Your task to perform on an android device: Open the calendar app, open the side menu, and click the "Day" option Image 0: 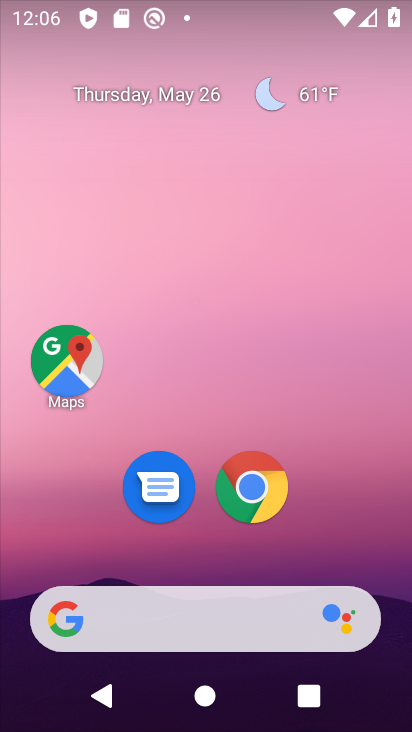
Step 0: drag from (390, 582) to (138, 23)
Your task to perform on an android device: Open the calendar app, open the side menu, and click the "Day" option Image 1: 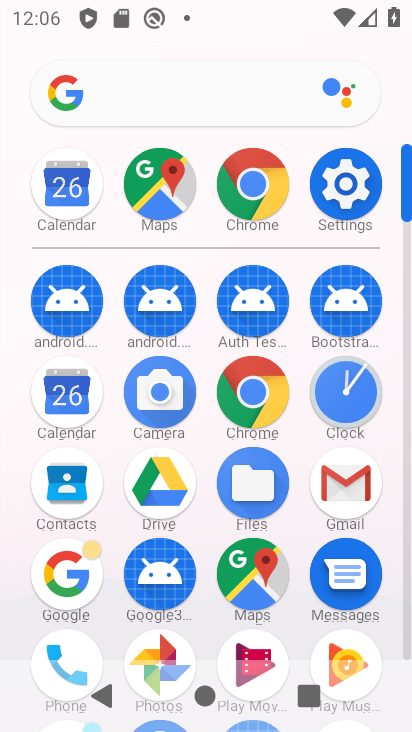
Step 1: click (74, 390)
Your task to perform on an android device: Open the calendar app, open the side menu, and click the "Day" option Image 2: 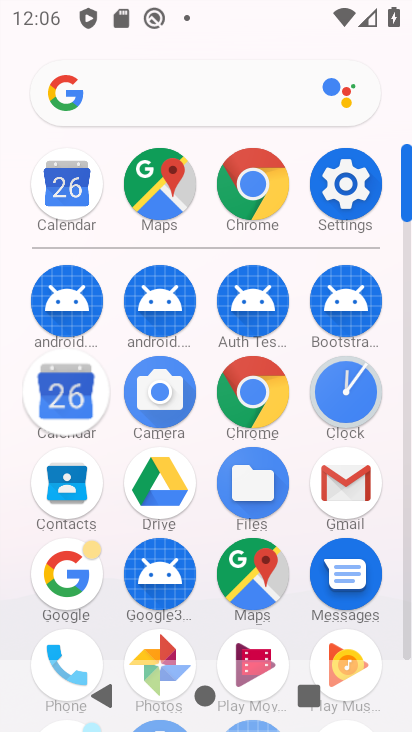
Step 2: click (85, 366)
Your task to perform on an android device: Open the calendar app, open the side menu, and click the "Day" option Image 3: 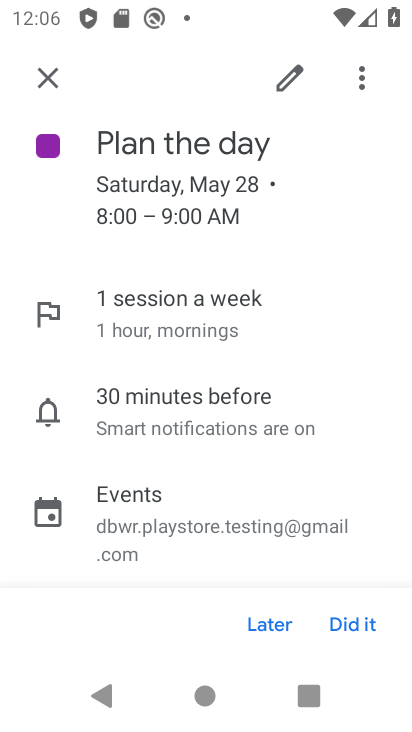
Step 3: click (54, 74)
Your task to perform on an android device: Open the calendar app, open the side menu, and click the "Day" option Image 4: 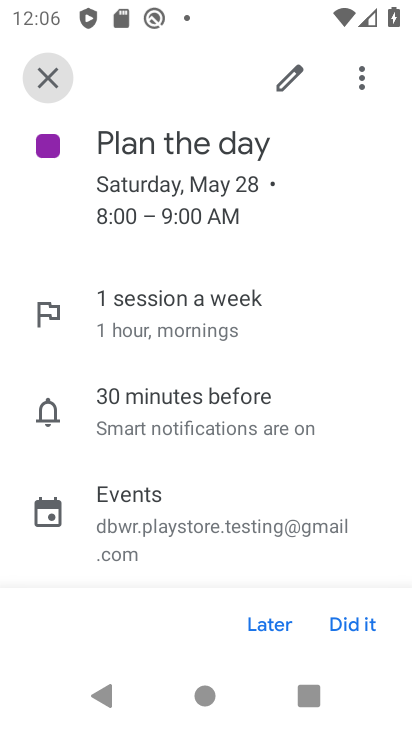
Step 4: click (53, 73)
Your task to perform on an android device: Open the calendar app, open the side menu, and click the "Day" option Image 5: 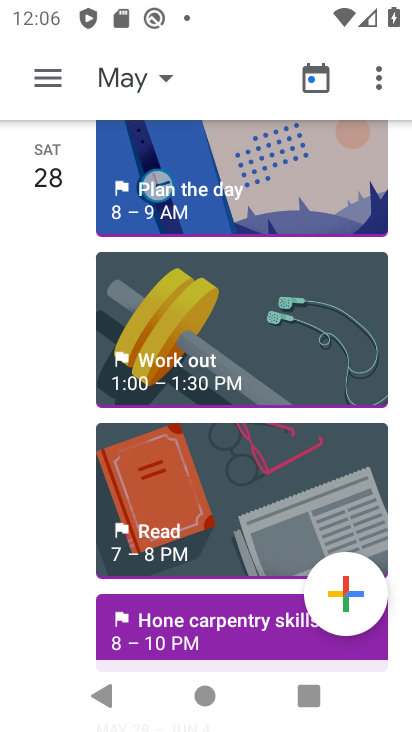
Step 5: click (52, 72)
Your task to perform on an android device: Open the calendar app, open the side menu, and click the "Day" option Image 6: 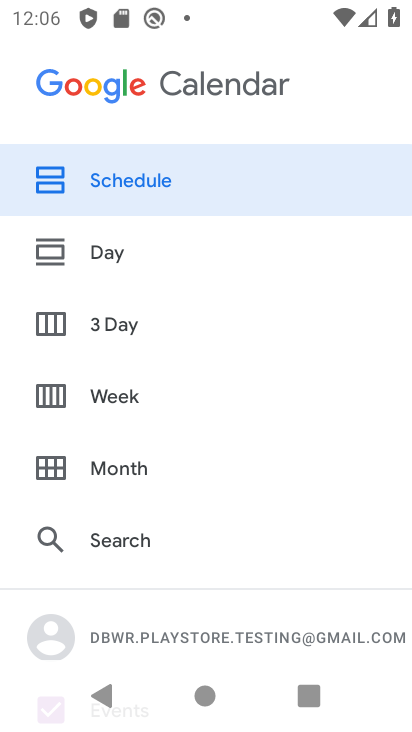
Step 6: drag from (61, 82) to (102, 260)
Your task to perform on an android device: Open the calendar app, open the side menu, and click the "Day" option Image 7: 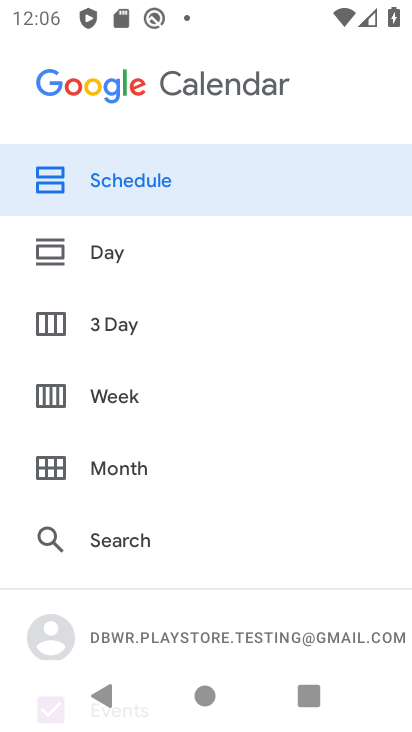
Step 7: click (102, 259)
Your task to perform on an android device: Open the calendar app, open the side menu, and click the "Day" option Image 8: 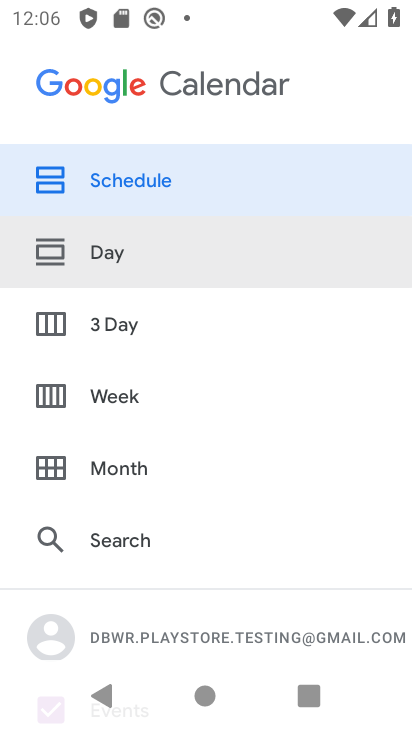
Step 8: click (106, 243)
Your task to perform on an android device: Open the calendar app, open the side menu, and click the "Day" option Image 9: 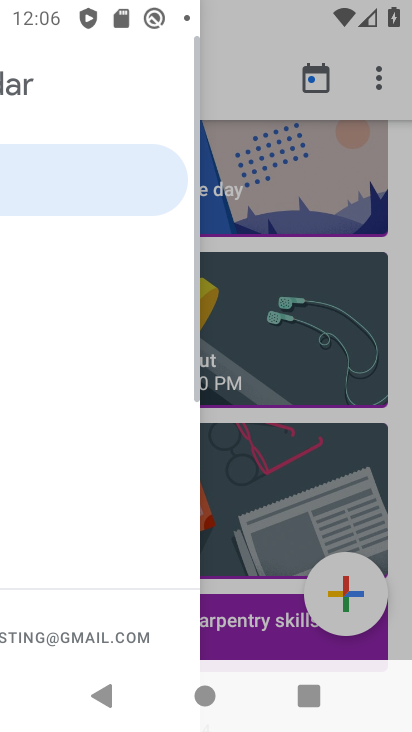
Step 9: click (108, 238)
Your task to perform on an android device: Open the calendar app, open the side menu, and click the "Day" option Image 10: 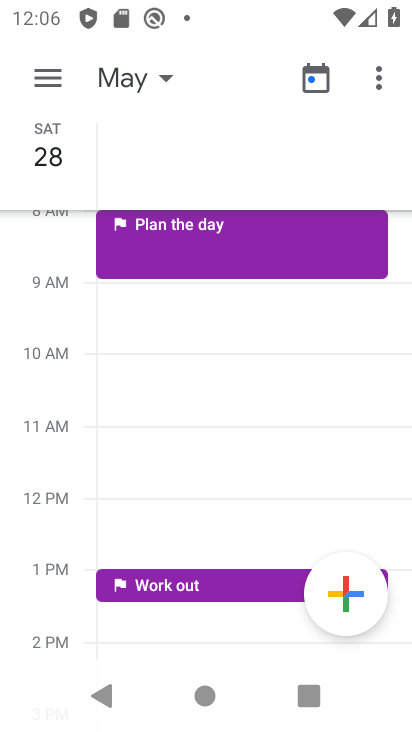
Step 10: task complete